Your task to perform on an android device: find photos in the google photos app Image 0: 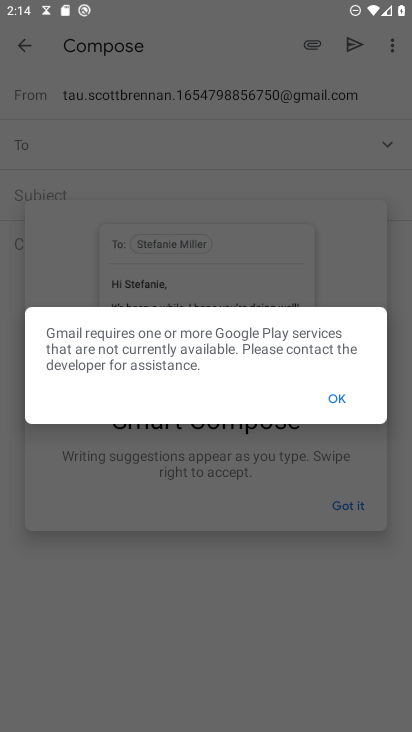
Step 0: press home button
Your task to perform on an android device: find photos in the google photos app Image 1: 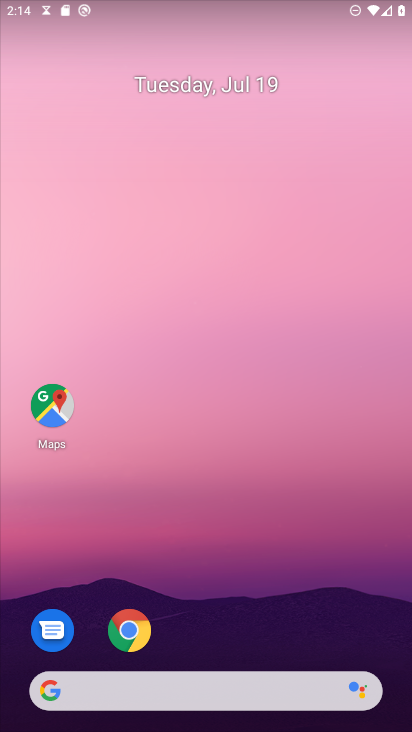
Step 1: drag from (152, 687) to (288, 103)
Your task to perform on an android device: find photos in the google photos app Image 2: 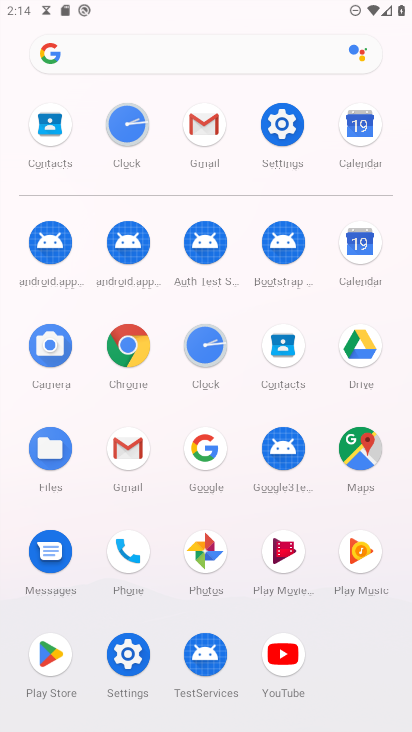
Step 2: click (211, 539)
Your task to perform on an android device: find photos in the google photos app Image 3: 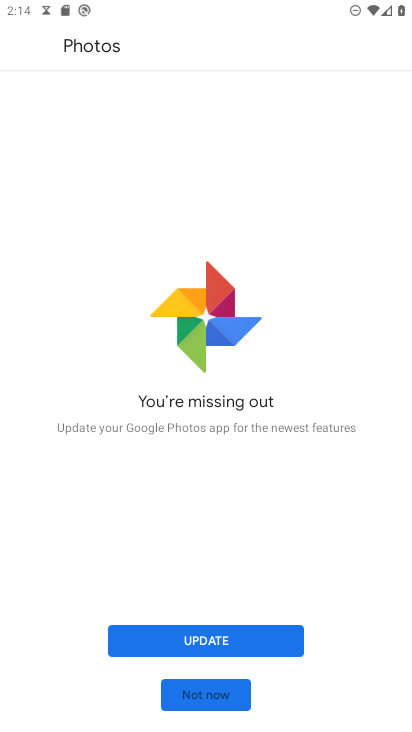
Step 3: click (206, 693)
Your task to perform on an android device: find photos in the google photos app Image 4: 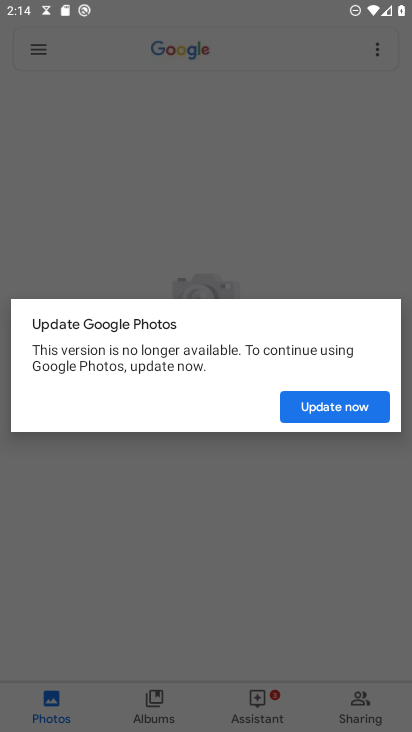
Step 4: click (342, 401)
Your task to perform on an android device: find photos in the google photos app Image 5: 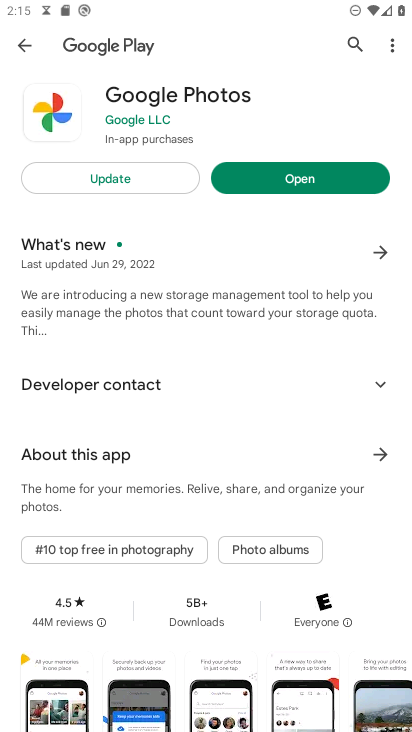
Step 5: click (285, 175)
Your task to perform on an android device: find photos in the google photos app Image 6: 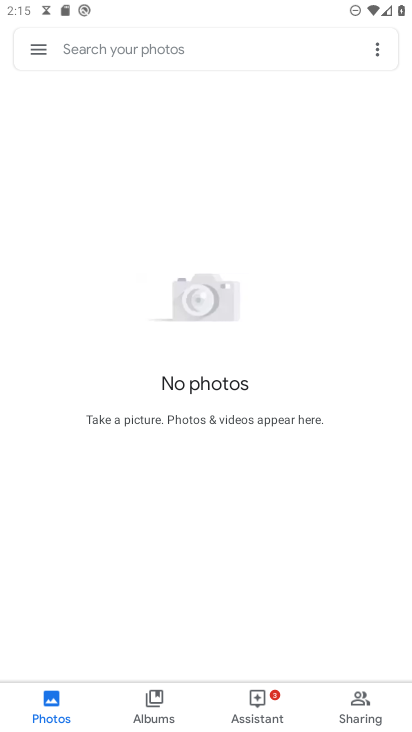
Step 6: task complete